Your task to perform on an android device: Open Google Maps and go to "Timeline" Image 0: 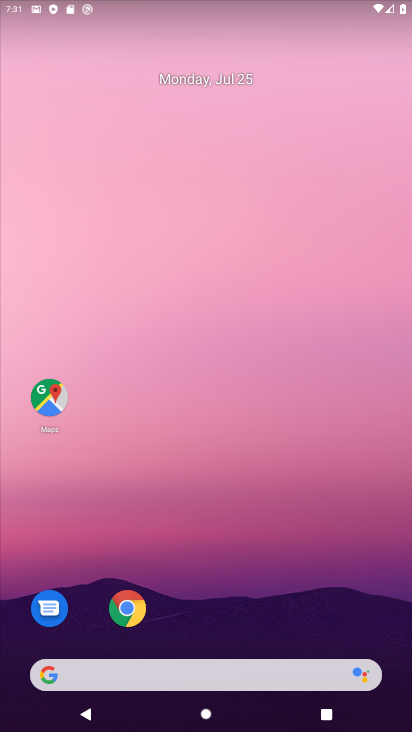
Step 0: click (44, 380)
Your task to perform on an android device: Open Google Maps and go to "Timeline" Image 1: 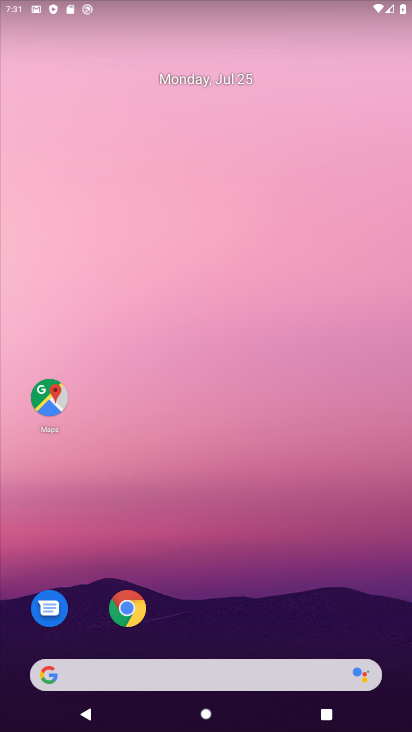
Step 1: click (44, 380)
Your task to perform on an android device: Open Google Maps and go to "Timeline" Image 2: 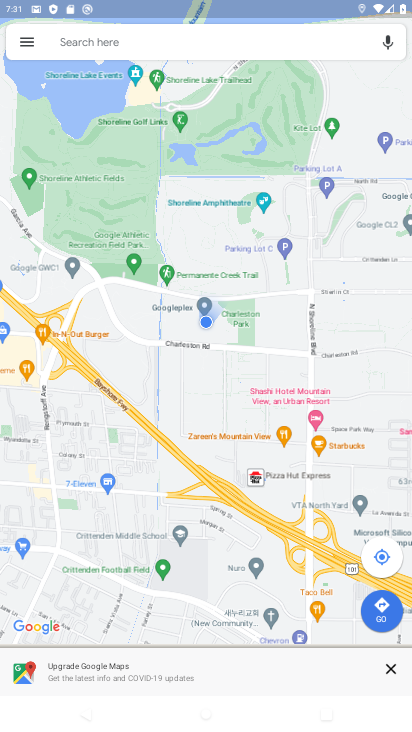
Step 2: click (22, 42)
Your task to perform on an android device: Open Google Maps and go to "Timeline" Image 3: 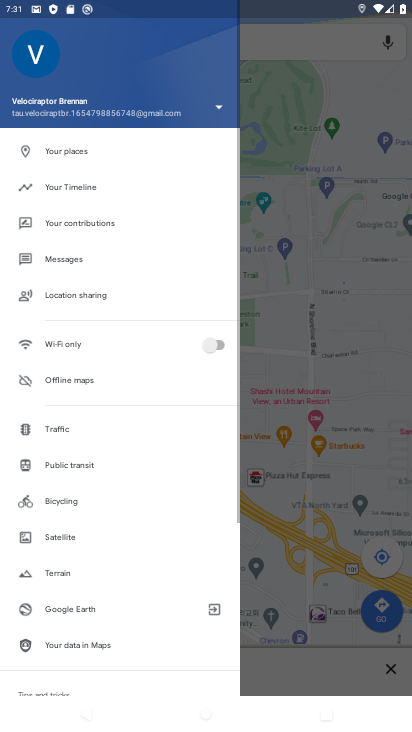
Step 3: click (99, 187)
Your task to perform on an android device: Open Google Maps and go to "Timeline" Image 4: 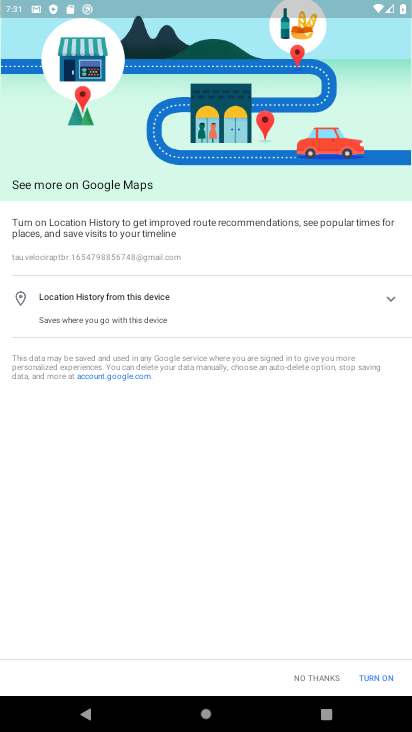
Step 4: click (378, 678)
Your task to perform on an android device: Open Google Maps and go to "Timeline" Image 5: 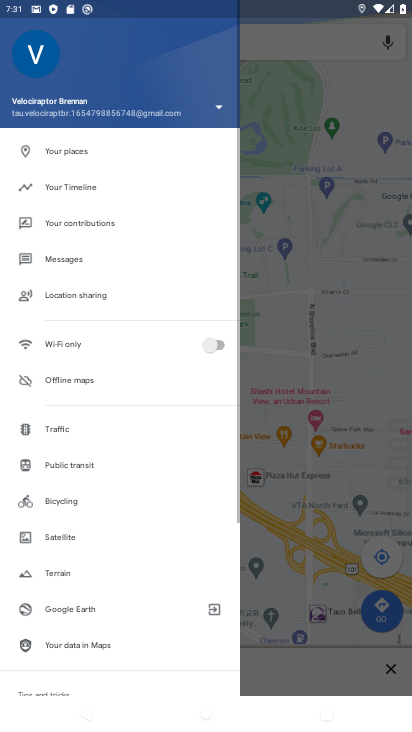
Step 5: click (129, 191)
Your task to perform on an android device: Open Google Maps and go to "Timeline" Image 6: 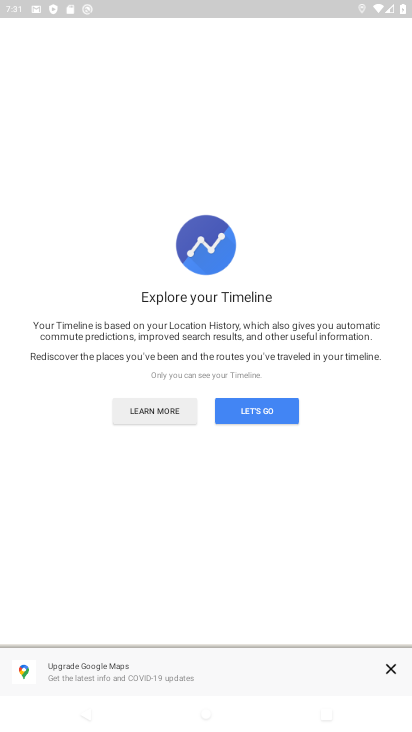
Step 6: click (258, 413)
Your task to perform on an android device: Open Google Maps and go to "Timeline" Image 7: 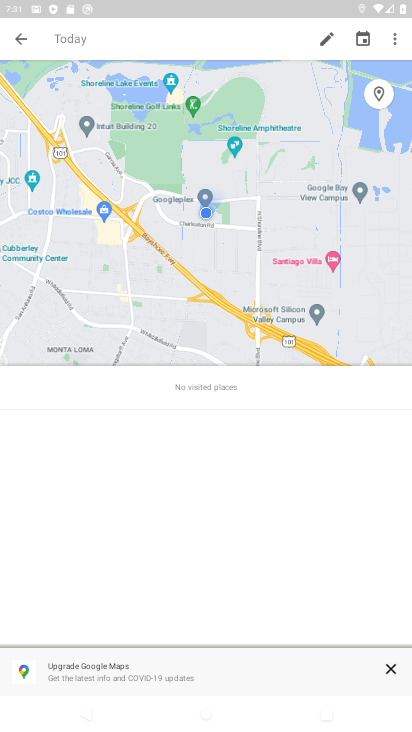
Step 7: task complete